Your task to perform on an android device: Find coffee shops on Maps Image 0: 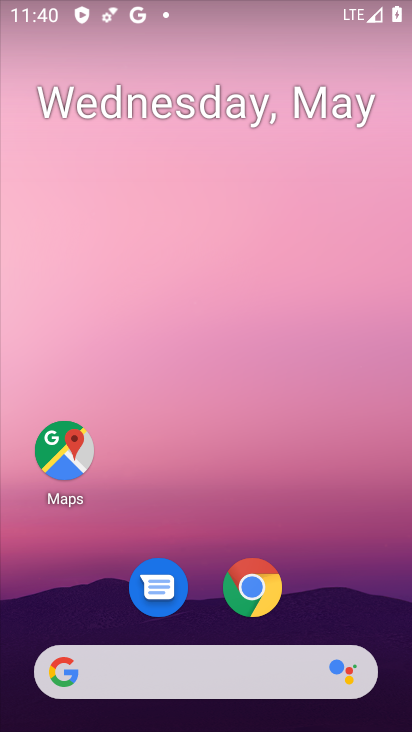
Step 0: click (76, 445)
Your task to perform on an android device: Find coffee shops on Maps Image 1: 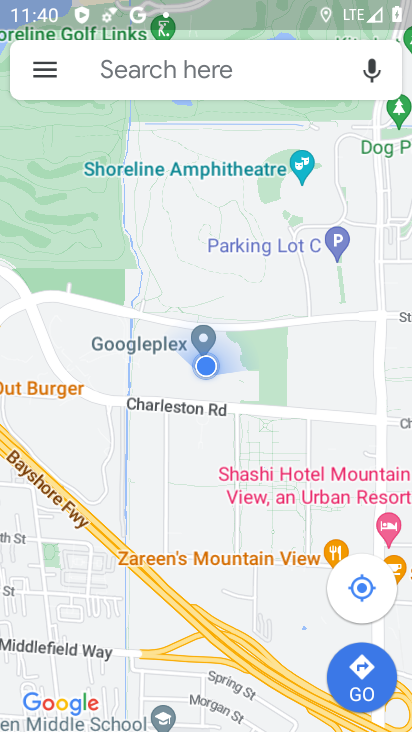
Step 1: click (216, 51)
Your task to perform on an android device: Find coffee shops on Maps Image 2: 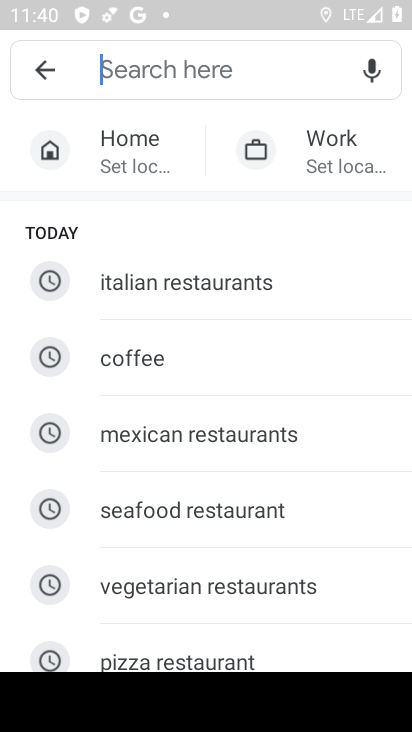
Step 2: click (214, 356)
Your task to perform on an android device: Find coffee shops on Maps Image 3: 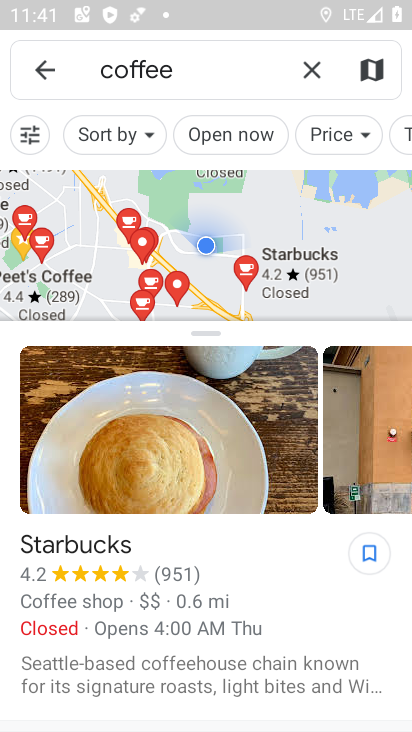
Step 3: task complete